Your task to perform on an android device: open device folders in google photos Image 0: 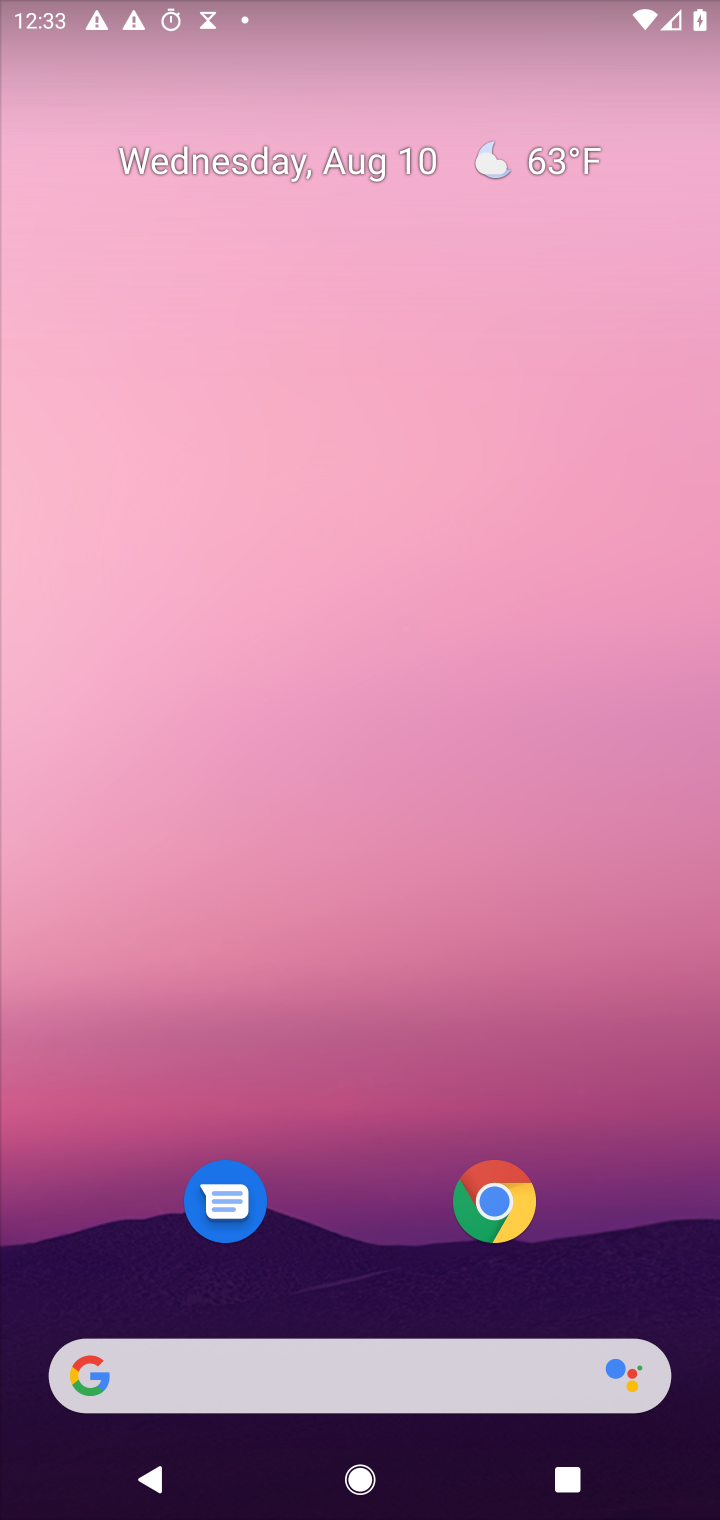
Step 0: press home button
Your task to perform on an android device: open device folders in google photos Image 1: 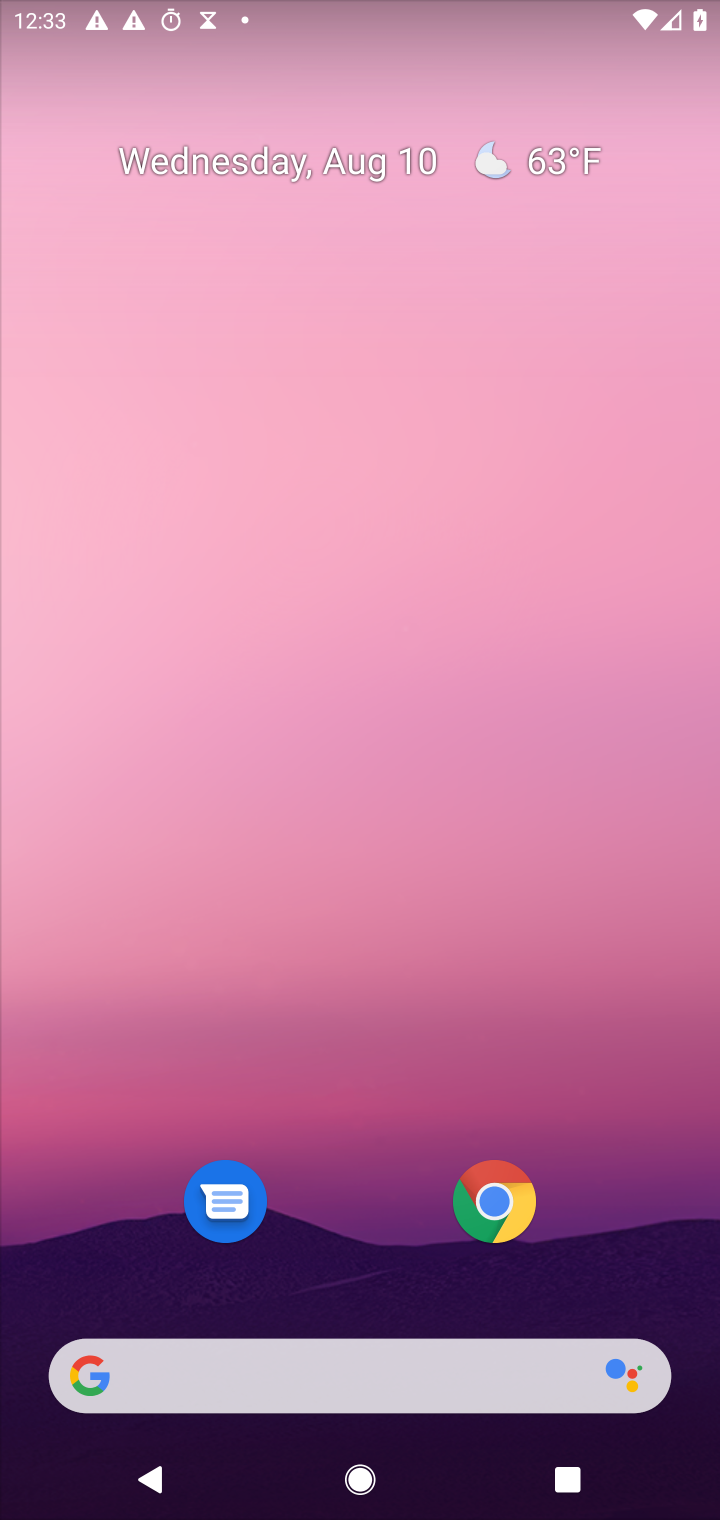
Step 1: drag from (335, 1191) to (362, 395)
Your task to perform on an android device: open device folders in google photos Image 2: 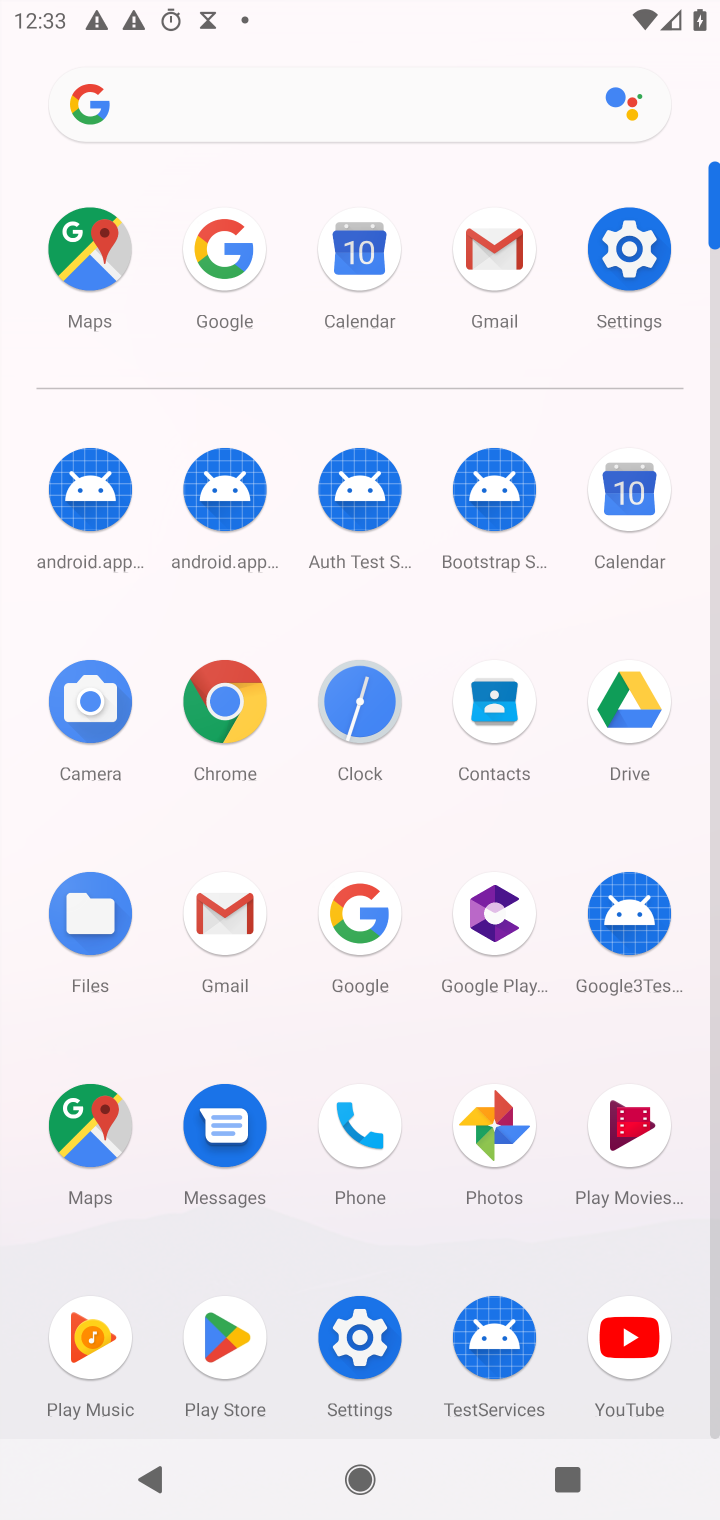
Step 2: click (489, 1125)
Your task to perform on an android device: open device folders in google photos Image 3: 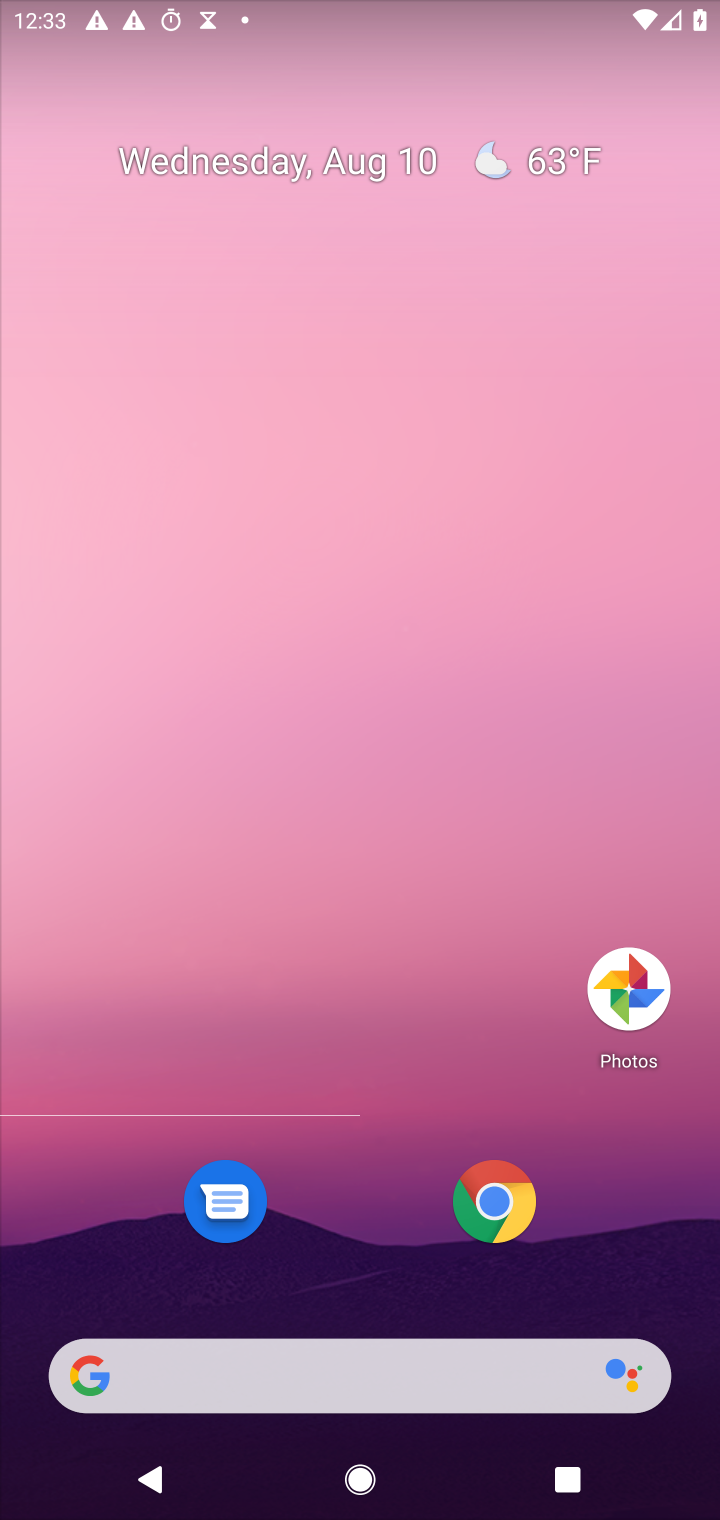
Step 3: click (627, 968)
Your task to perform on an android device: open device folders in google photos Image 4: 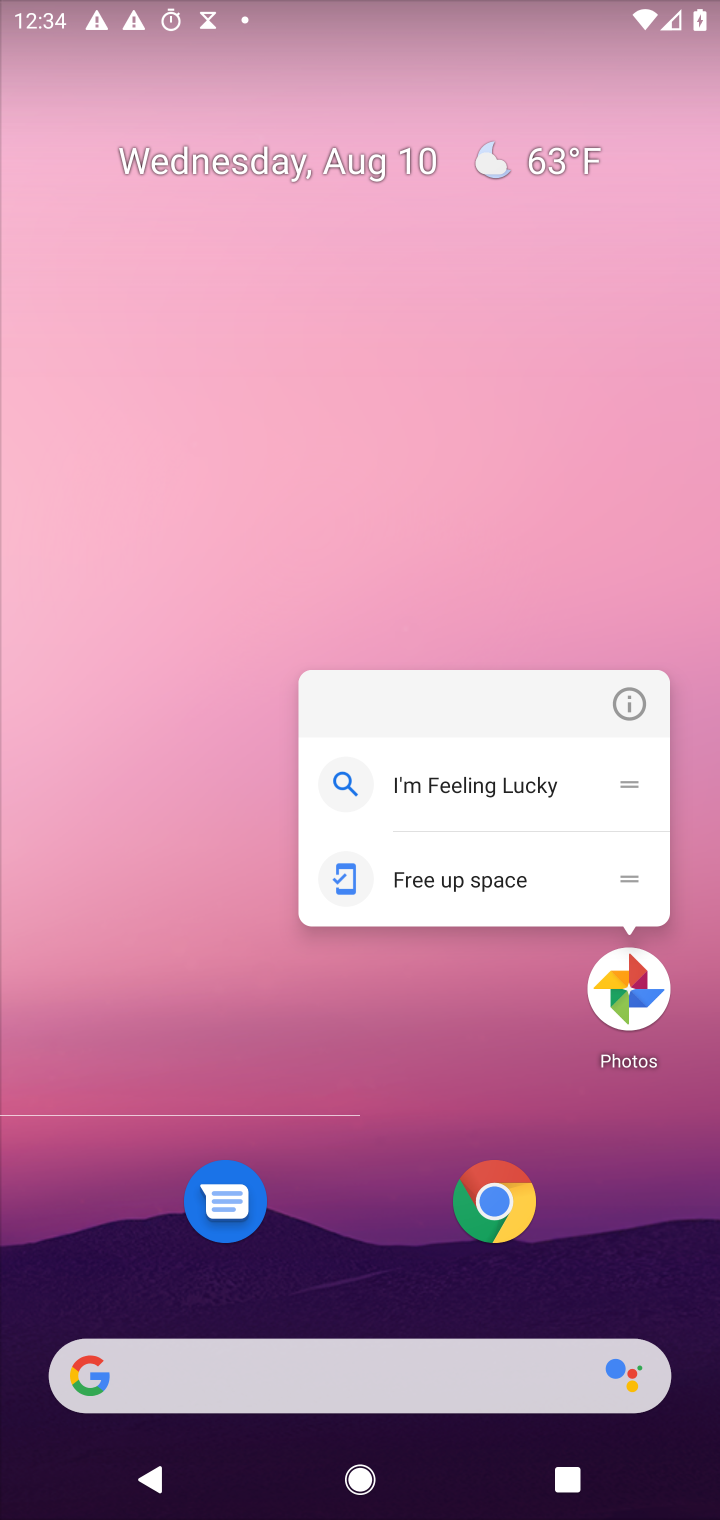
Step 4: click (635, 990)
Your task to perform on an android device: open device folders in google photos Image 5: 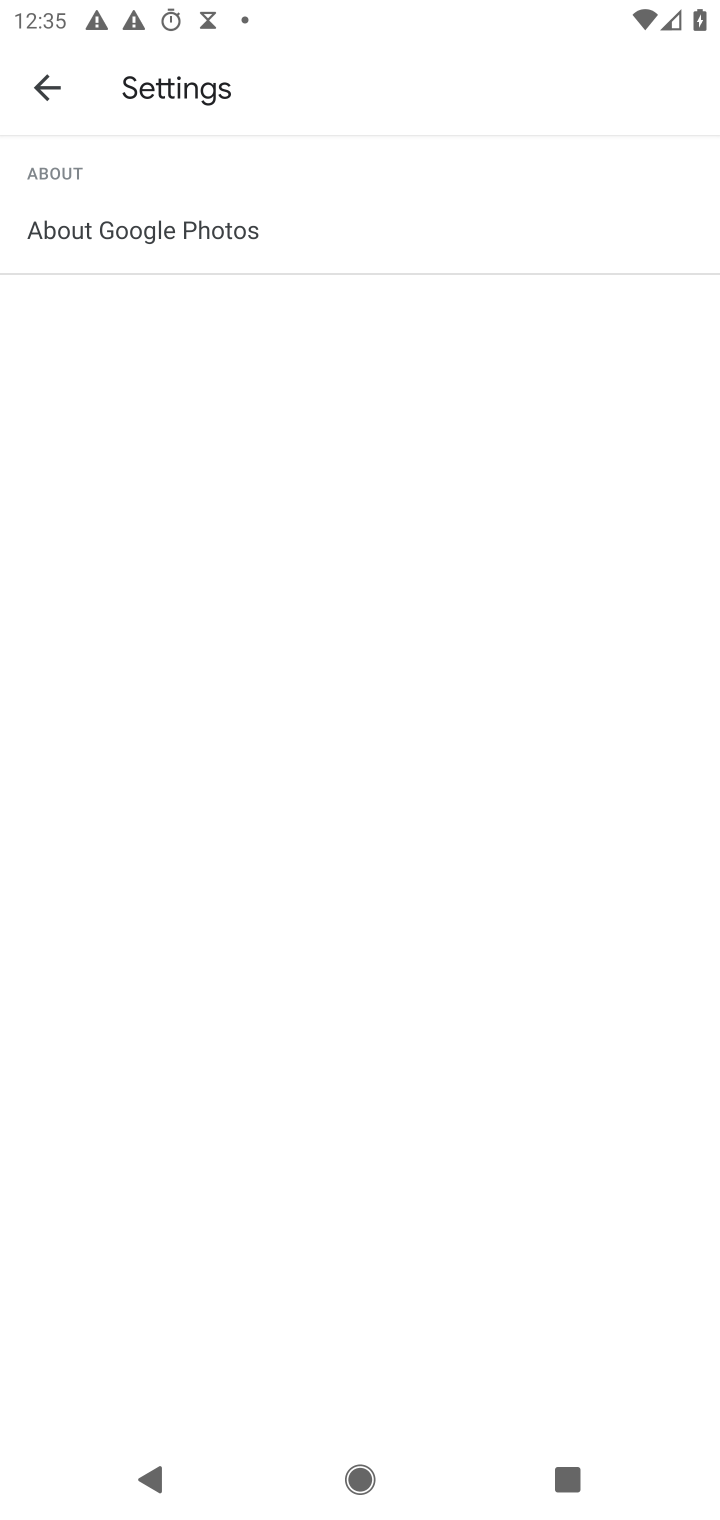
Step 5: press back button
Your task to perform on an android device: open device folders in google photos Image 6: 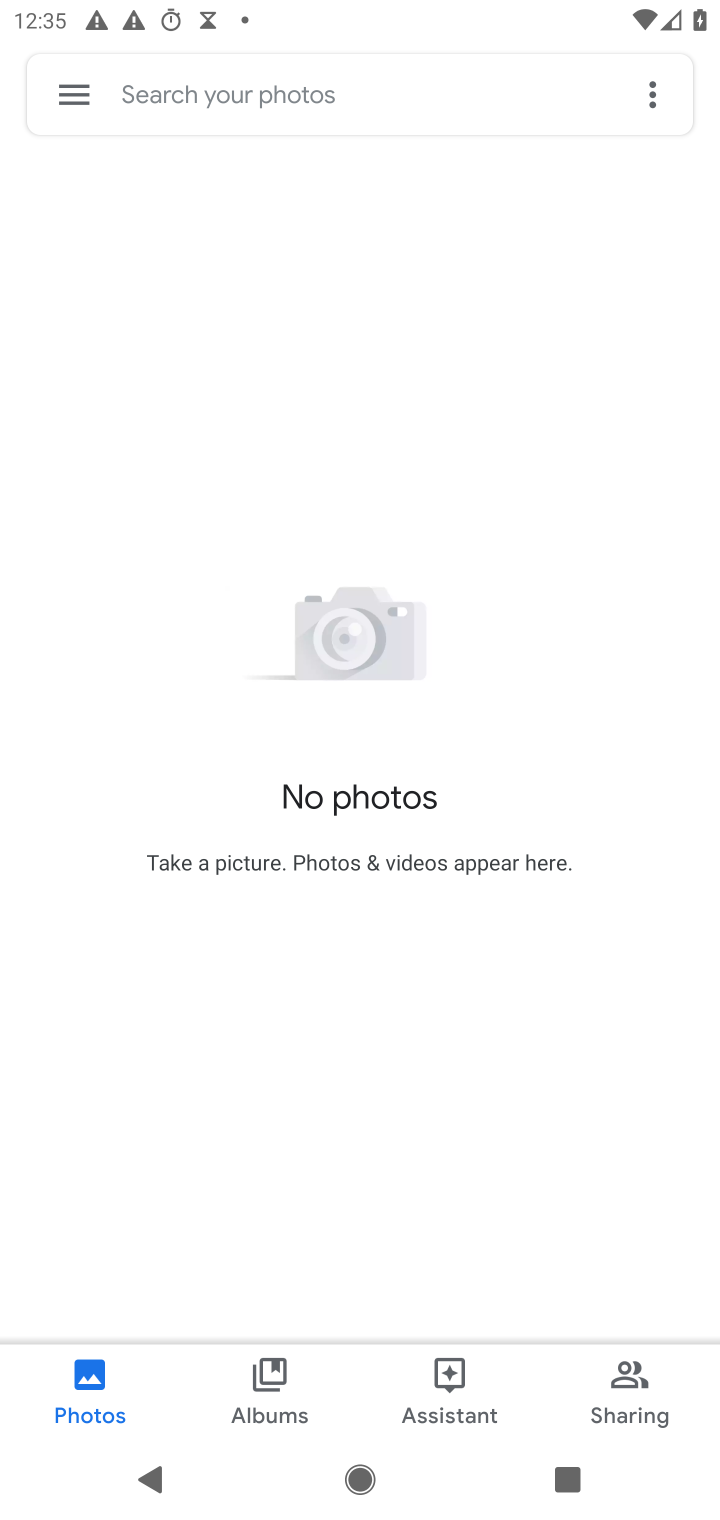
Step 6: click (92, 1370)
Your task to perform on an android device: open device folders in google photos Image 7: 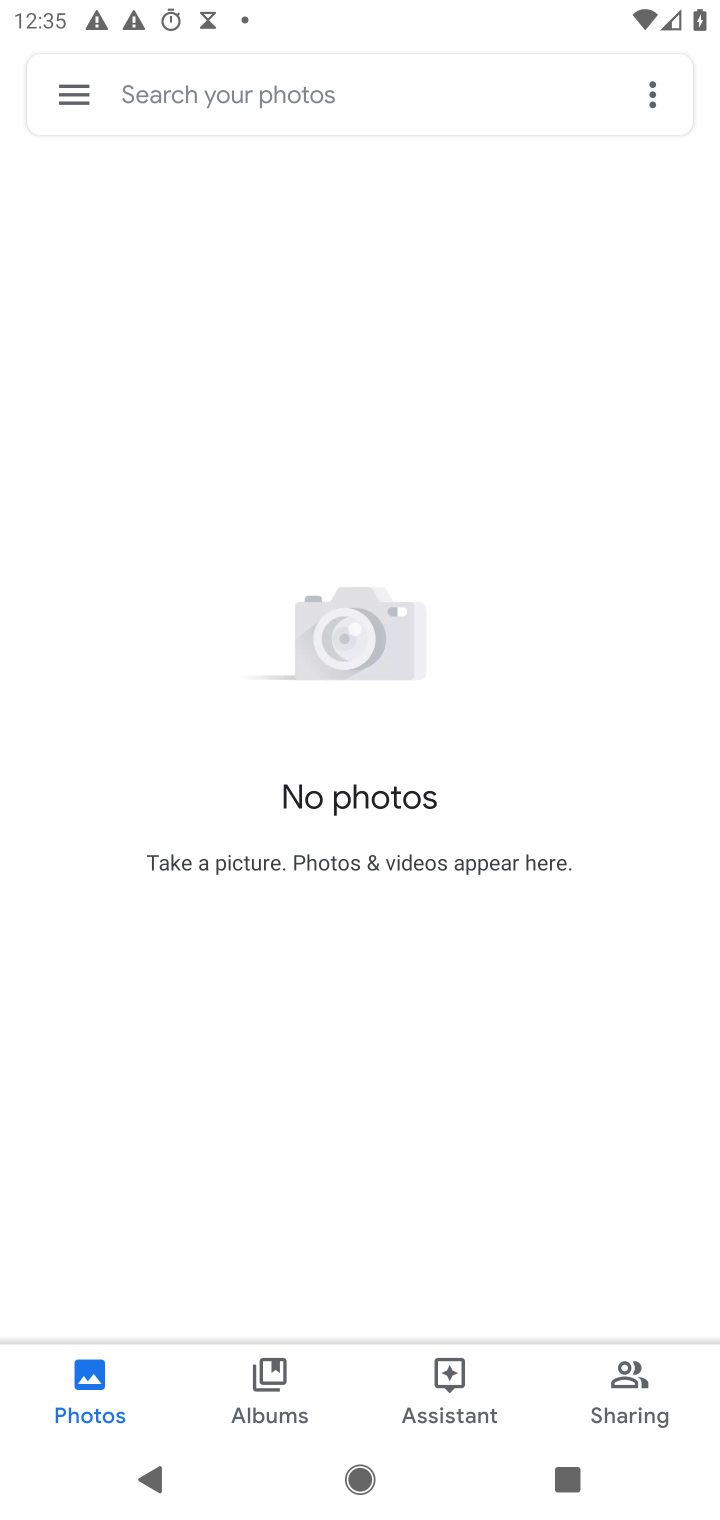
Step 7: click (252, 1381)
Your task to perform on an android device: open device folders in google photos Image 8: 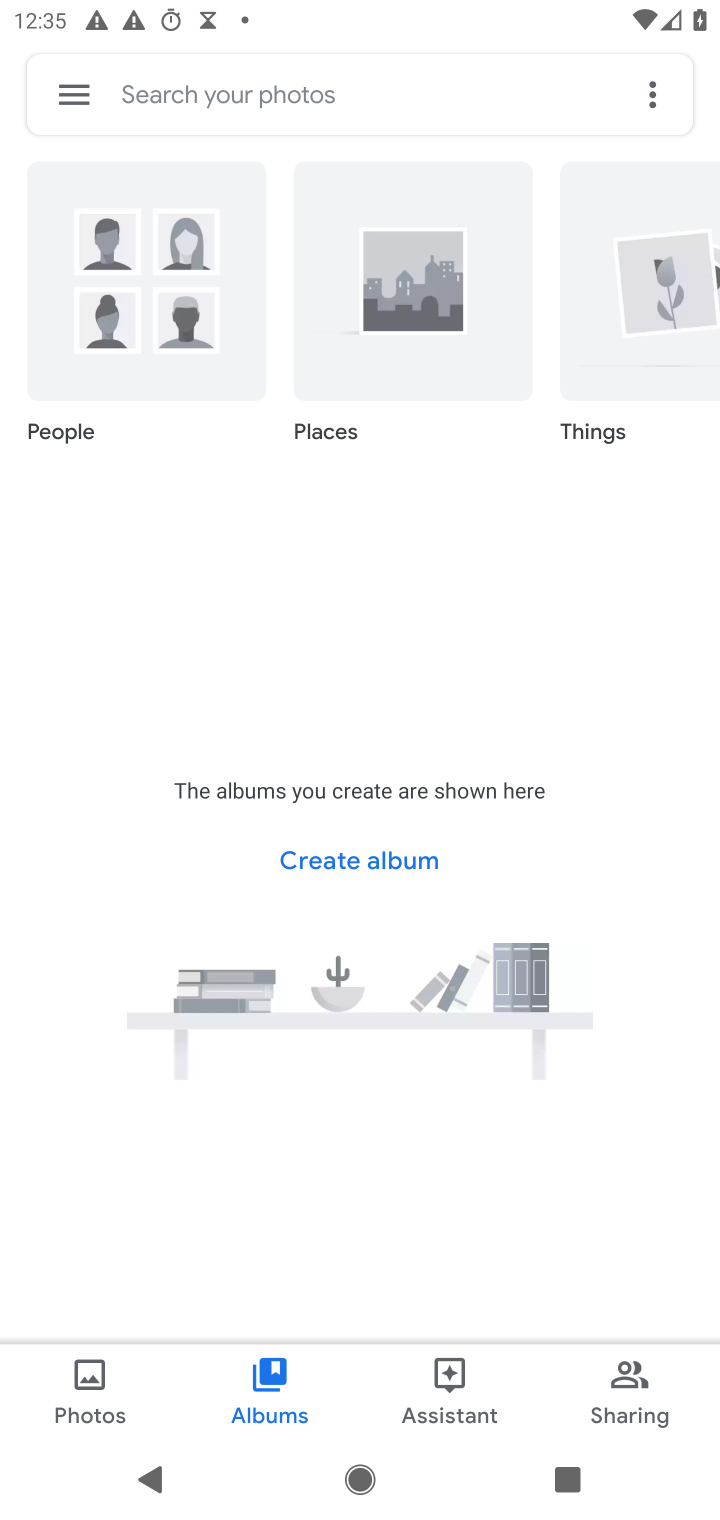
Step 8: click (173, 90)
Your task to perform on an android device: open device folders in google photos Image 9: 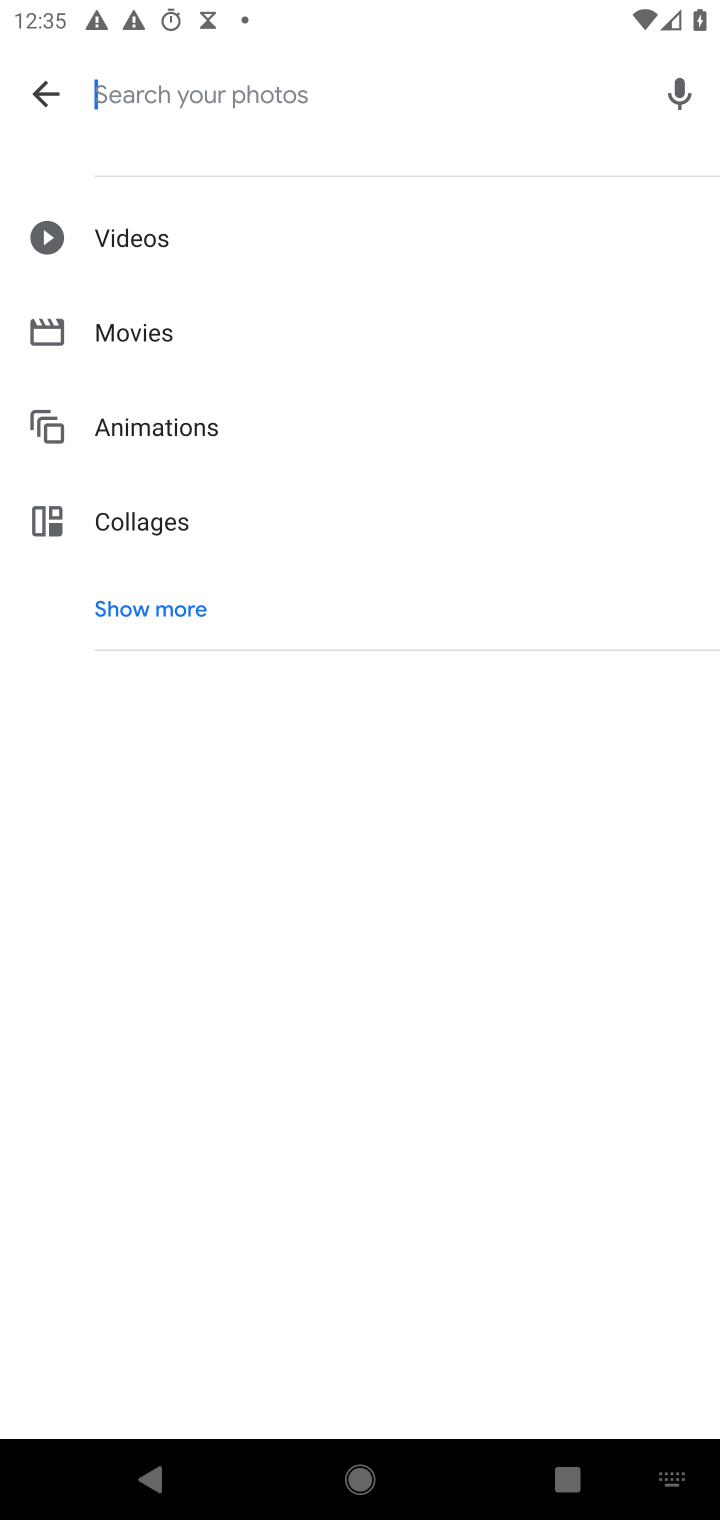
Step 9: type "device folders"
Your task to perform on an android device: open device folders in google photos Image 10: 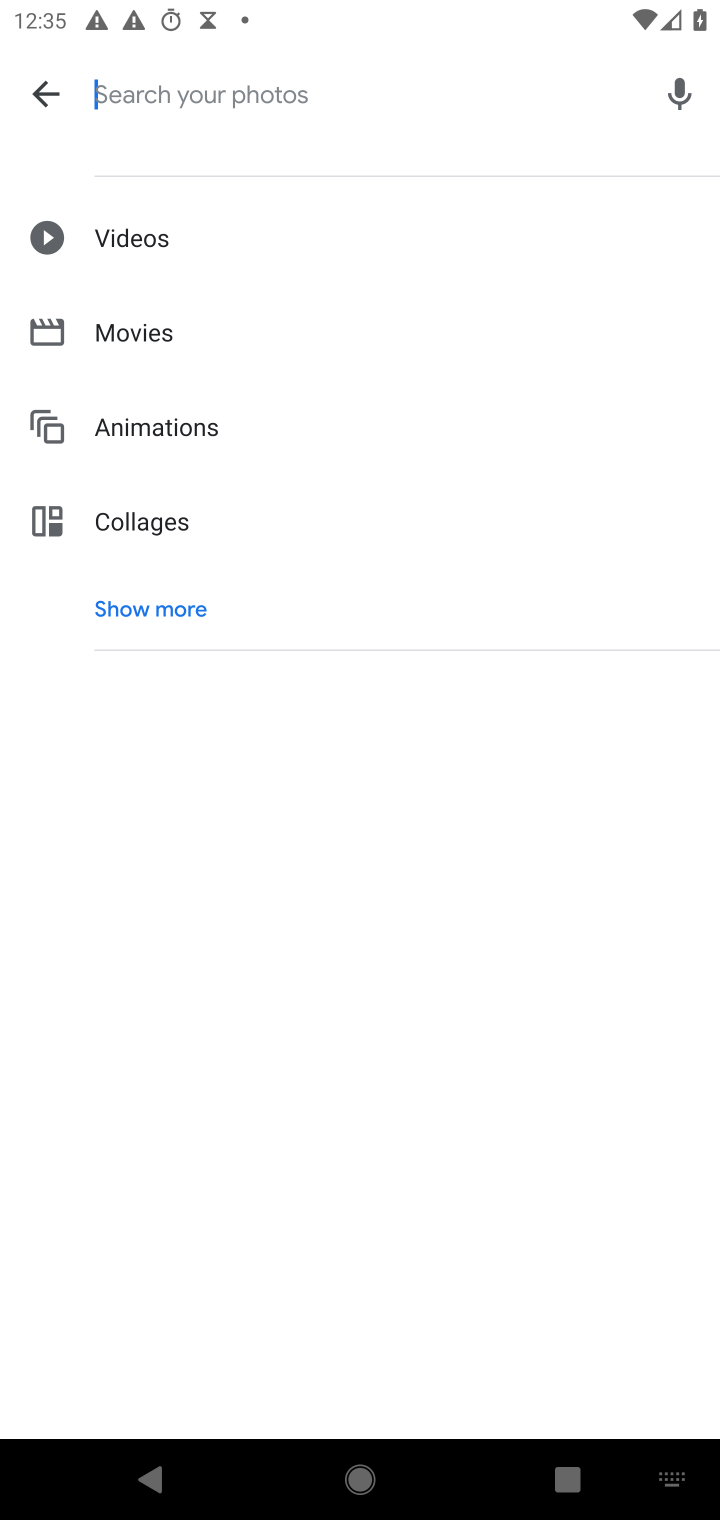
Step 10: click (212, 93)
Your task to perform on an android device: open device folders in google photos Image 11: 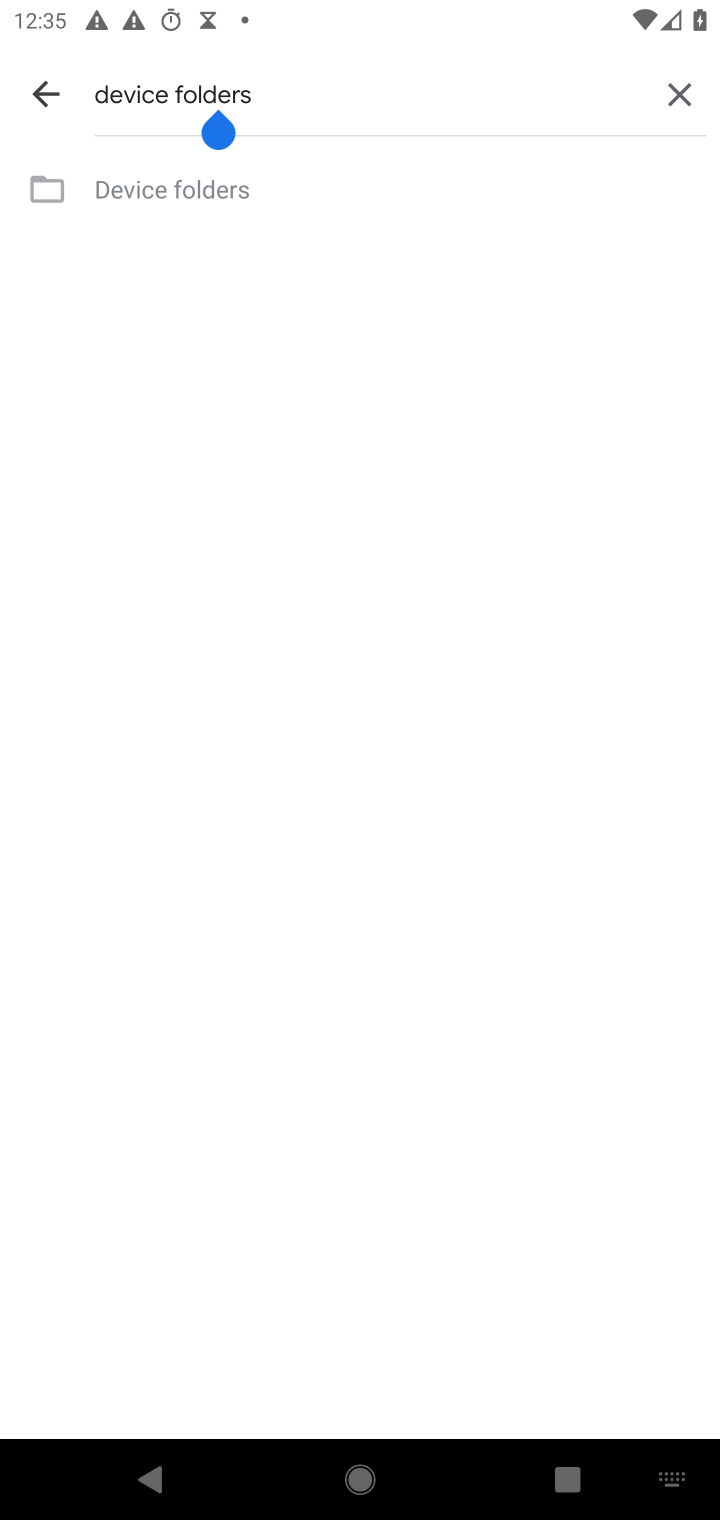
Step 11: click (211, 190)
Your task to perform on an android device: open device folders in google photos Image 12: 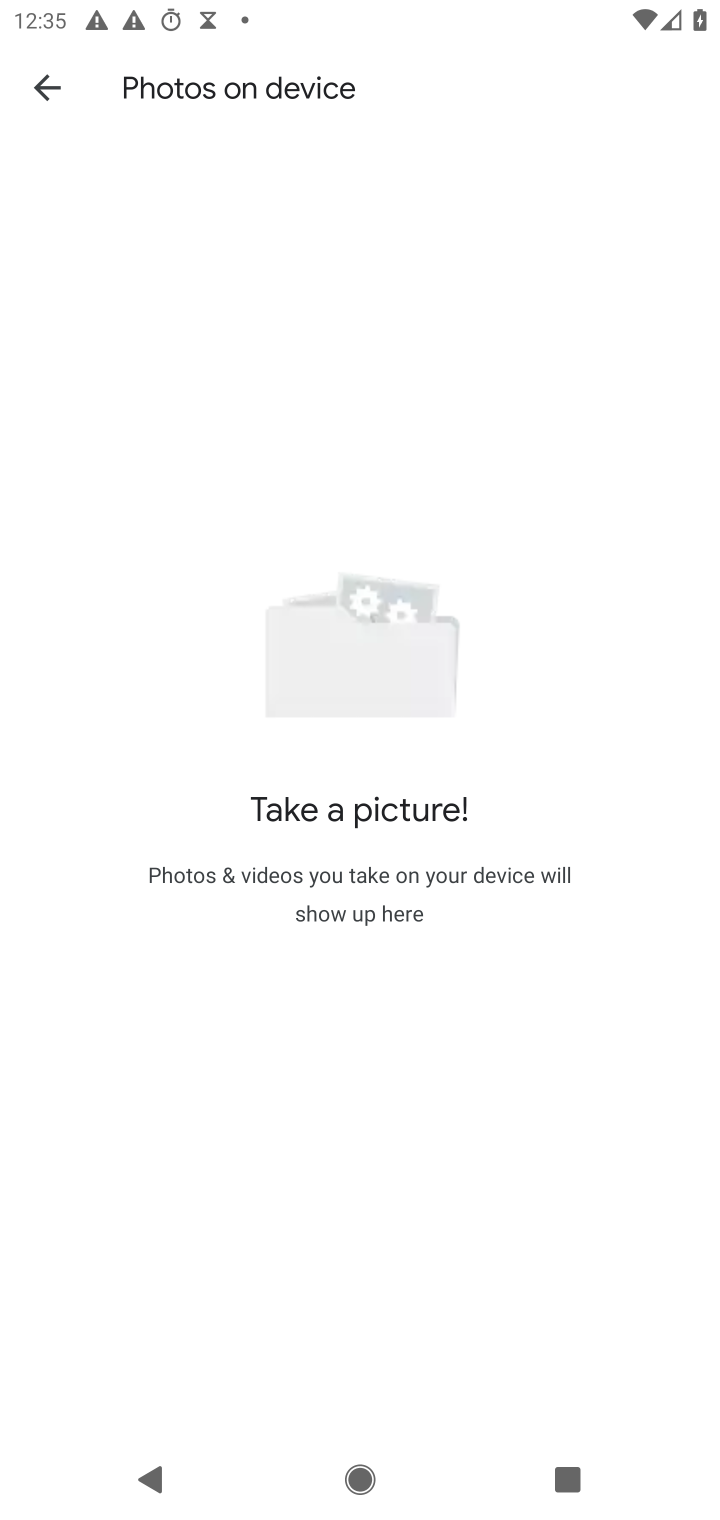
Step 12: task complete